Your task to perform on an android device: turn off data saver in the chrome app Image 0: 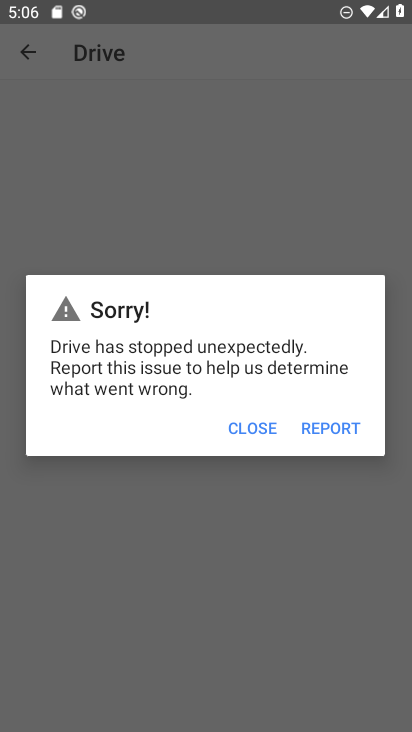
Step 0: press home button
Your task to perform on an android device: turn off data saver in the chrome app Image 1: 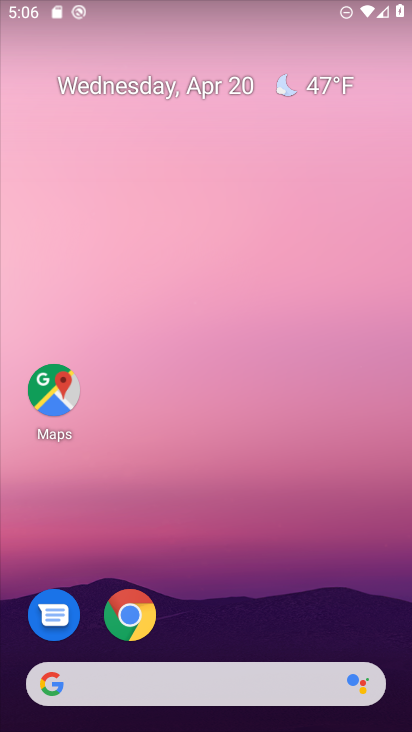
Step 1: click (135, 607)
Your task to perform on an android device: turn off data saver in the chrome app Image 2: 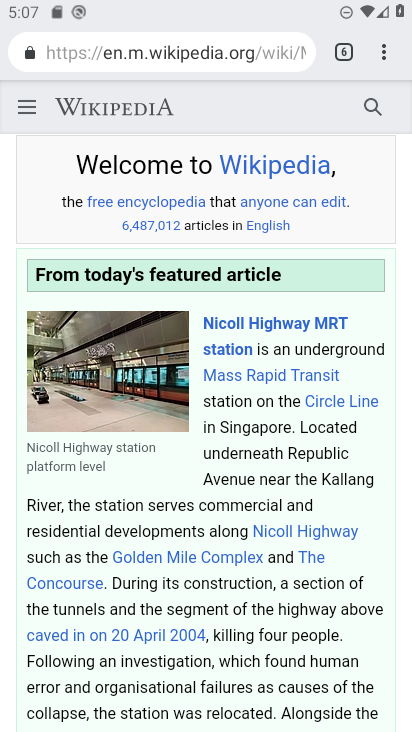
Step 2: click (384, 50)
Your task to perform on an android device: turn off data saver in the chrome app Image 3: 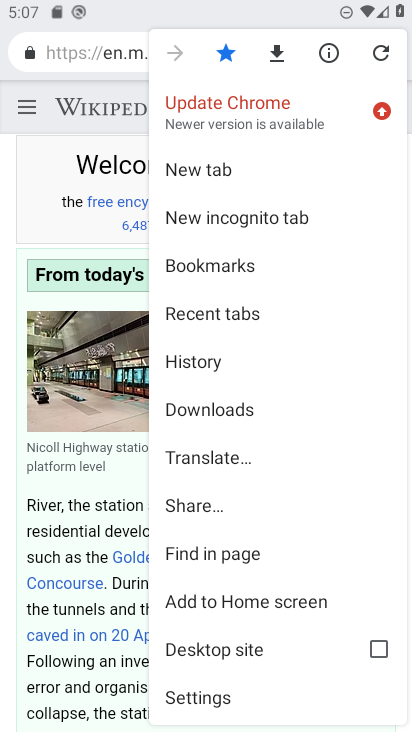
Step 3: click (240, 692)
Your task to perform on an android device: turn off data saver in the chrome app Image 4: 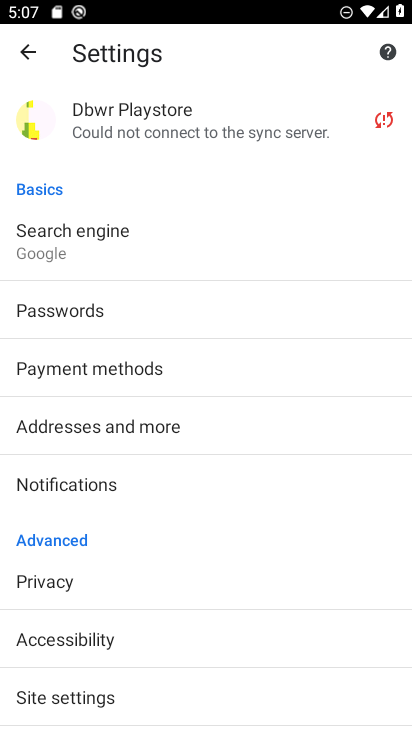
Step 4: task complete